Your task to perform on an android device: What's the weather going to be tomorrow? Image 0: 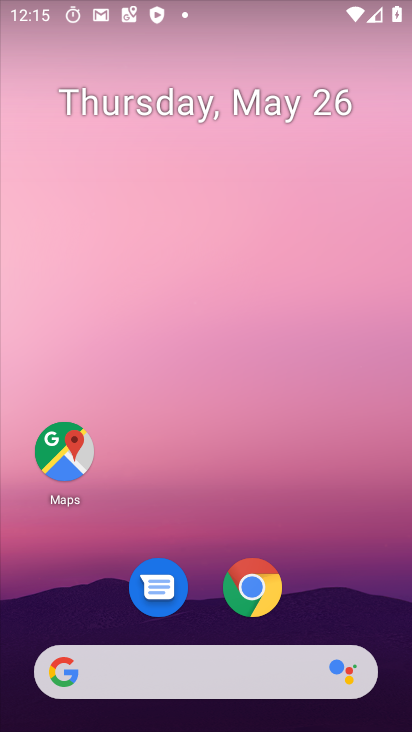
Step 0: press home button
Your task to perform on an android device: What's the weather going to be tomorrow? Image 1: 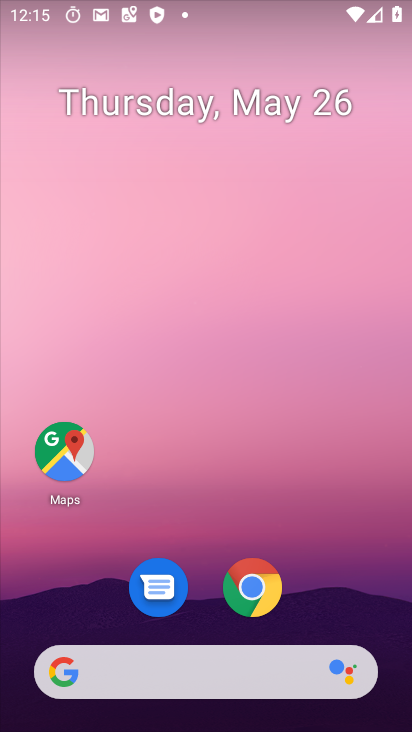
Step 1: drag from (234, 689) to (224, 93)
Your task to perform on an android device: What's the weather going to be tomorrow? Image 2: 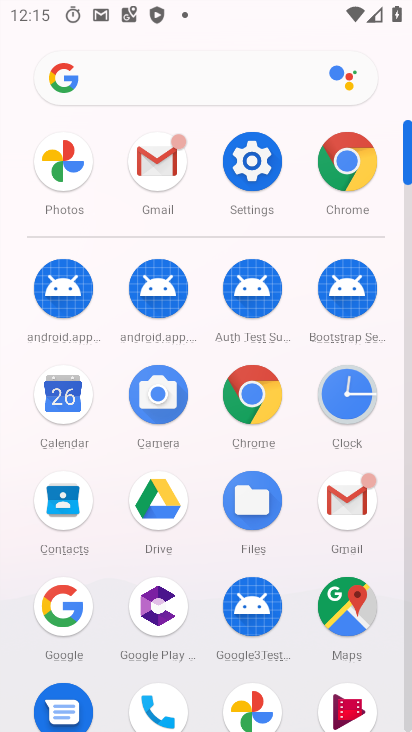
Step 2: click (260, 154)
Your task to perform on an android device: What's the weather going to be tomorrow? Image 3: 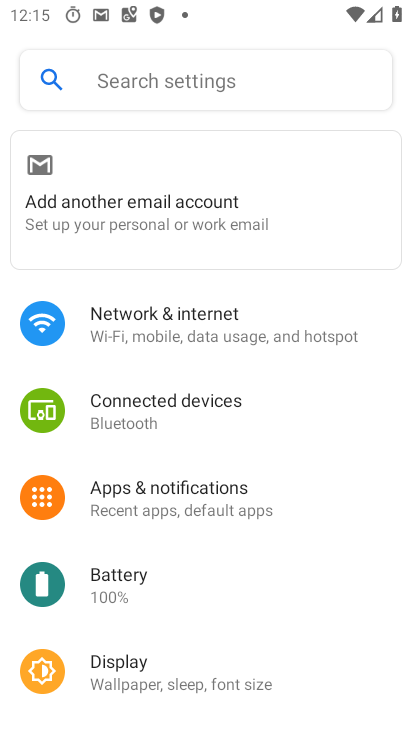
Step 3: click (173, 94)
Your task to perform on an android device: What's the weather going to be tomorrow? Image 4: 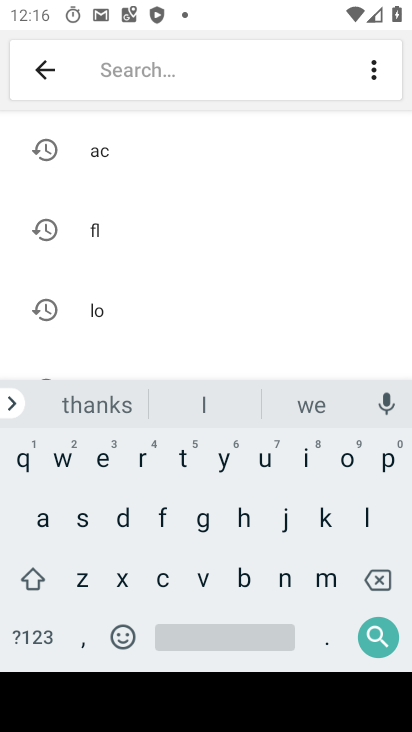
Step 4: press home button
Your task to perform on an android device: What's the weather going to be tomorrow? Image 5: 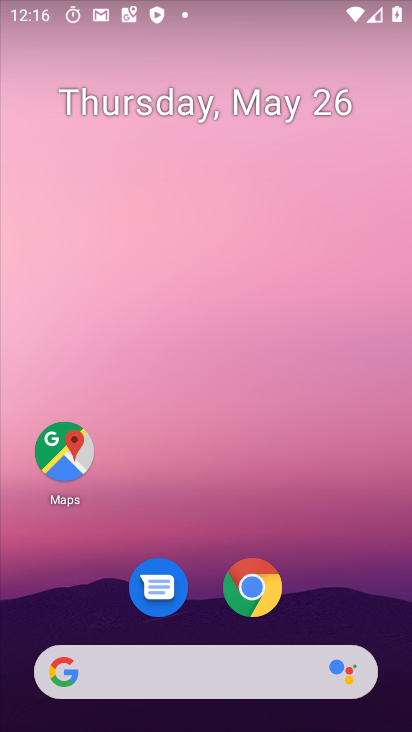
Step 5: click (183, 676)
Your task to perform on an android device: What's the weather going to be tomorrow? Image 6: 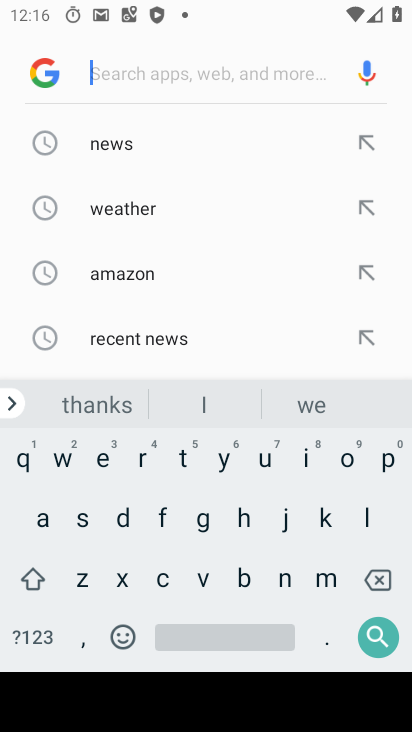
Step 6: click (127, 215)
Your task to perform on an android device: What's the weather going to be tomorrow? Image 7: 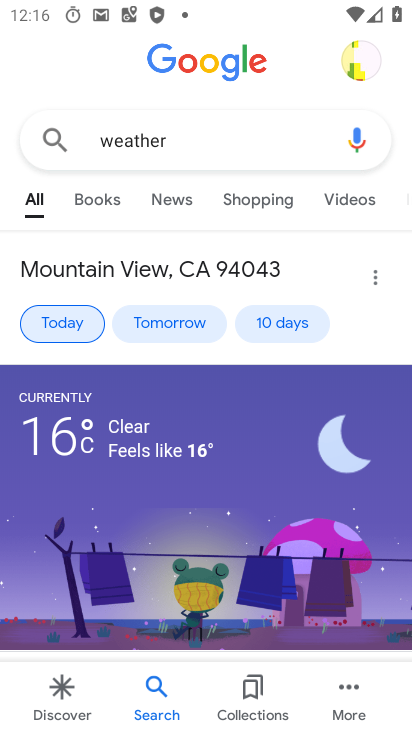
Step 7: click (173, 324)
Your task to perform on an android device: What's the weather going to be tomorrow? Image 8: 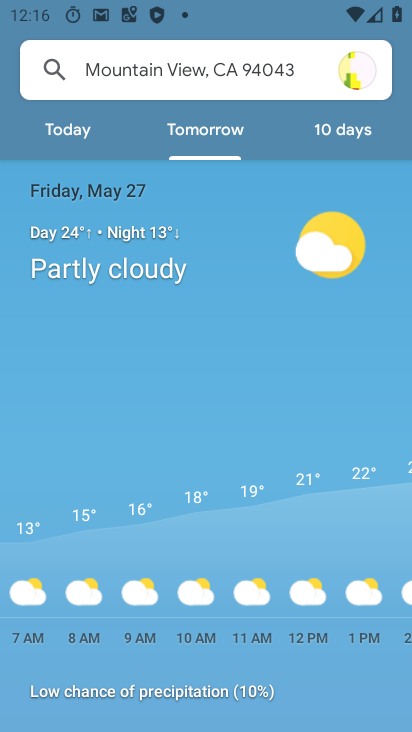
Step 8: task complete